Your task to perform on an android device: refresh tabs in the chrome app Image 0: 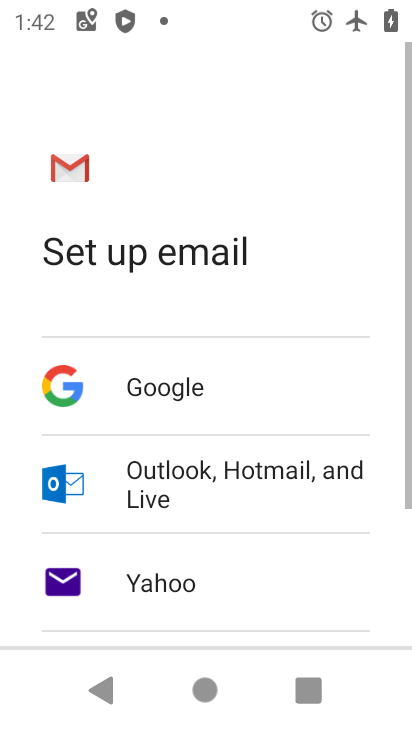
Step 0: press home button
Your task to perform on an android device: refresh tabs in the chrome app Image 1: 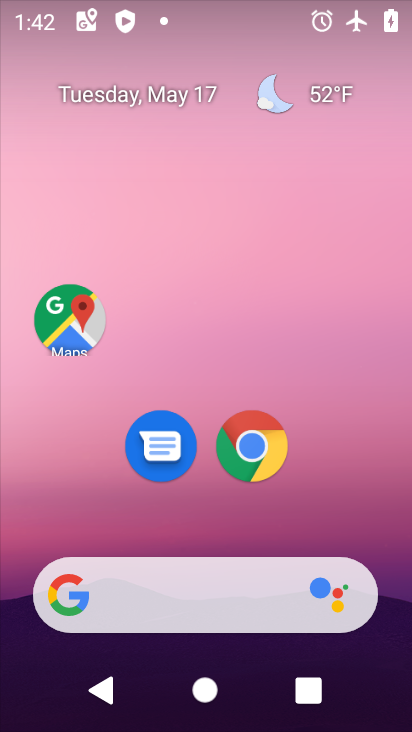
Step 1: click (245, 445)
Your task to perform on an android device: refresh tabs in the chrome app Image 2: 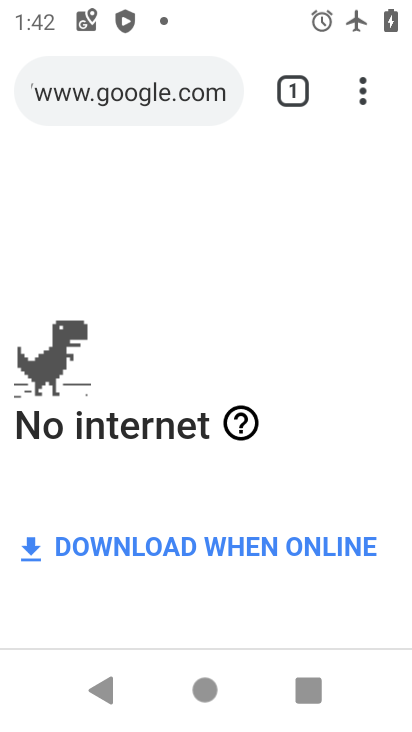
Step 2: click (357, 89)
Your task to perform on an android device: refresh tabs in the chrome app Image 3: 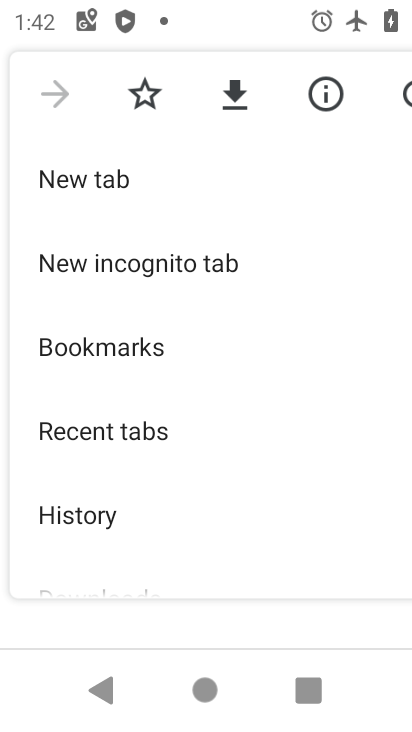
Step 3: click (408, 98)
Your task to perform on an android device: refresh tabs in the chrome app Image 4: 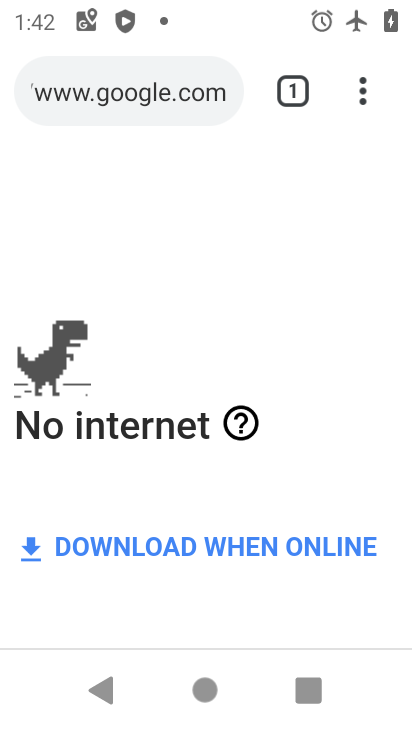
Step 4: task complete